Your task to perform on an android device: Go to battery settings Image 0: 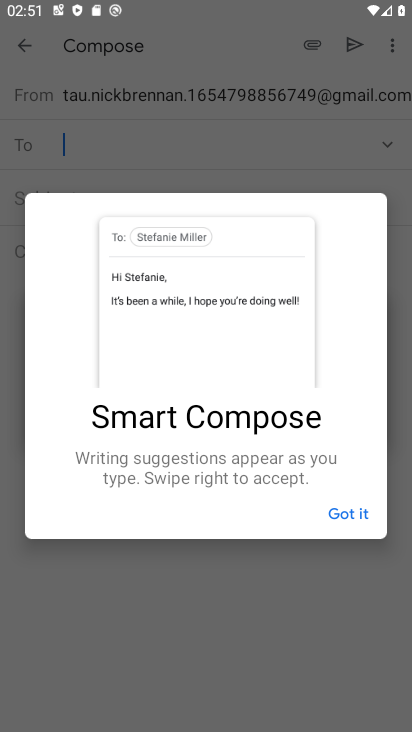
Step 0: press home button
Your task to perform on an android device: Go to battery settings Image 1: 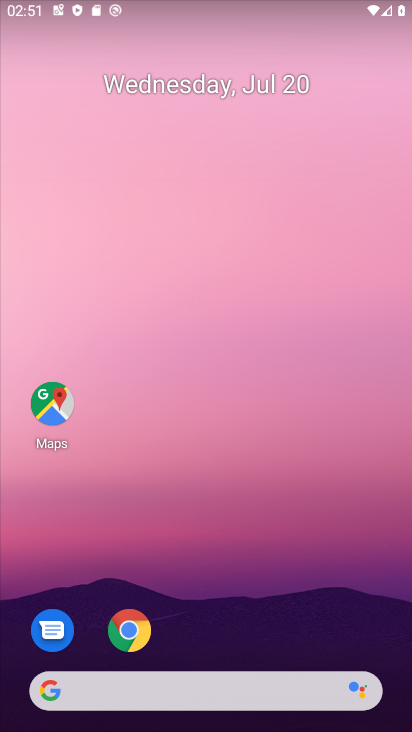
Step 1: drag from (277, 619) to (318, 101)
Your task to perform on an android device: Go to battery settings Image 2: 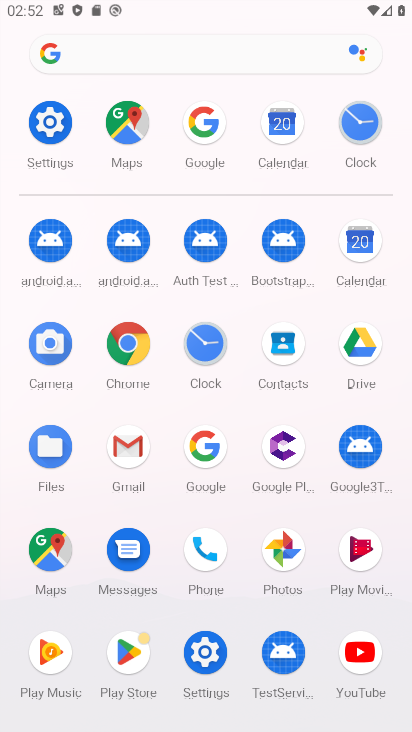
Step 2: click (49, 142)
Your task to perform on an android device: Go to battery settings Image 3: 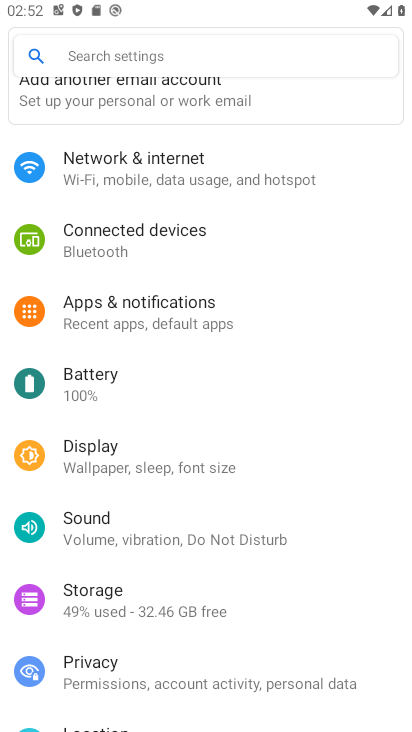
Step 3: drag from (333, 236) to (336, 357)
Your task to perform on an android device: Go to battery settings Image 4: 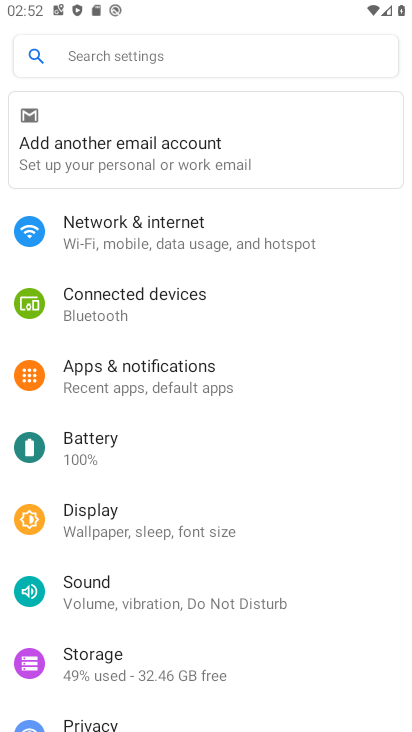
Step 4: drag from (363, 232) to (362, 363)
Your task to perform on an android device: Go to battery settings Image 5: 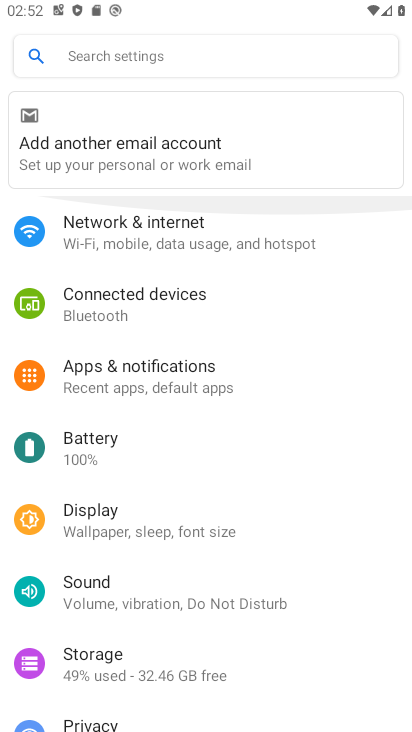
Step 5: drag from (335, 452) to (340, 382)
Your task to perform on an android device: Go to battery settings Image 6: 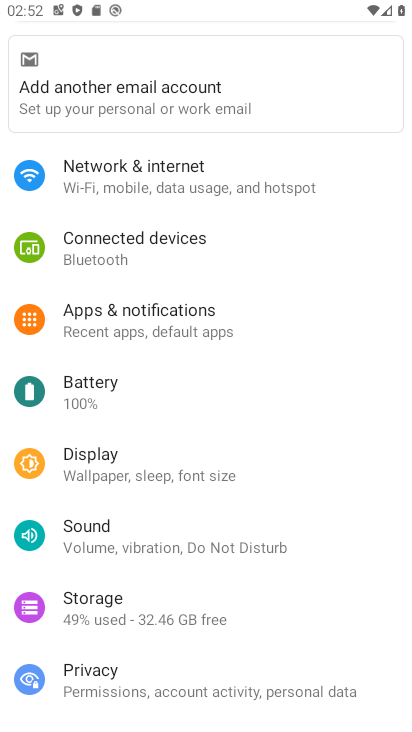
Step 6: drag from (339, 456) to (336, 390)
Your task to perform on an android device: Go to battery settings Image 7: 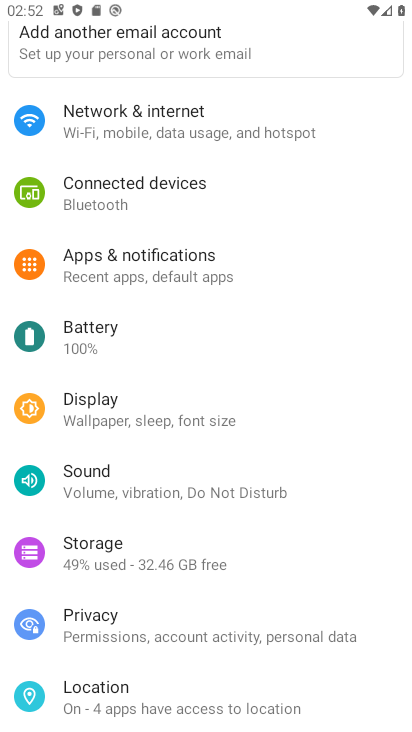
Step 7: click (200, 348)
Your task to perform on an android device: Go to battery settings Image 8: 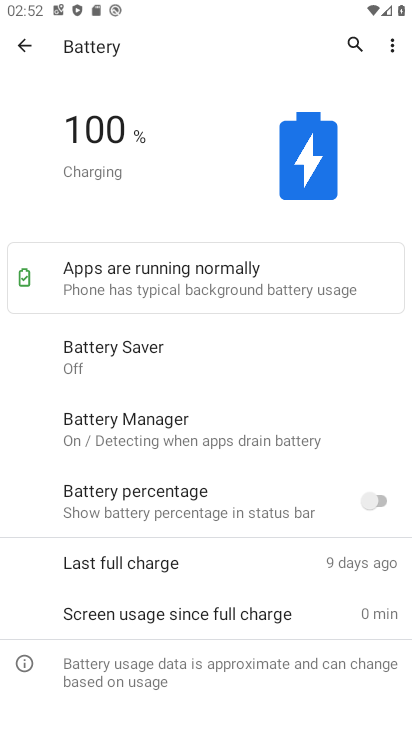
Step 8: task complete